Your task to perform on an android device: move a message to another label in the gmail app Image 0: 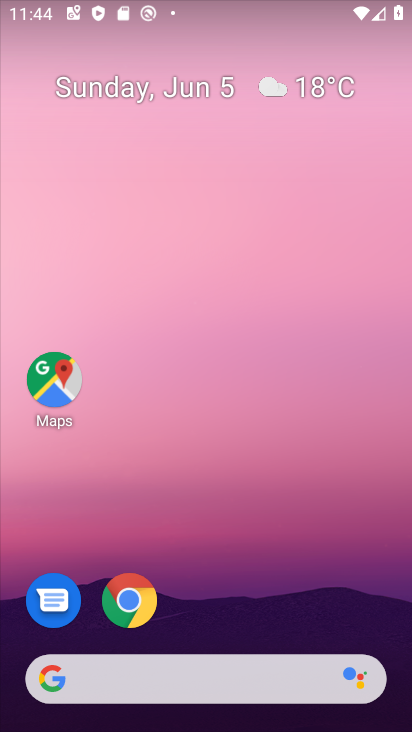
Step 0: drag from (119, 725) to (165, 119)
Your task to perform on an android device: move a message to another label in the gmail app Image 1: 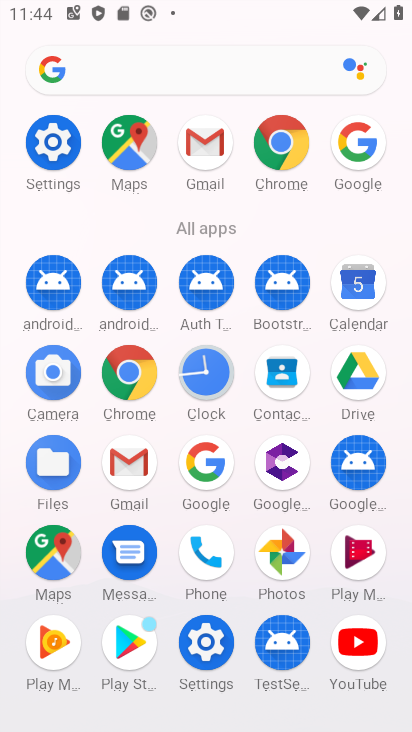
Step 1: click (122, 478)
Your task to perform on an android device: move a message to another label in the gmail app Image 2: 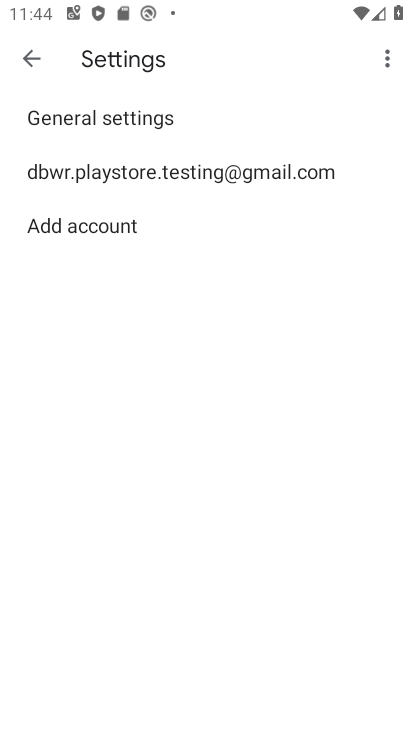
Step 2: click (30, 58)
Your task to perform on an android device: move a message to another label in the gmail app Image 3: 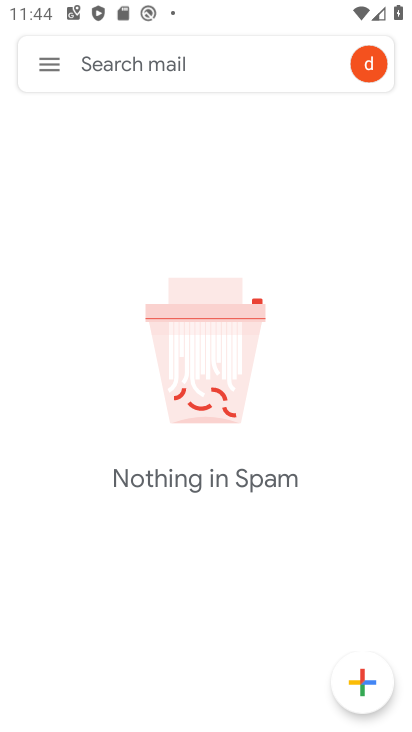
Step 3: click (50, 75)
Your task to perform on an android device: move a message to another label in the gmail app Image 4: 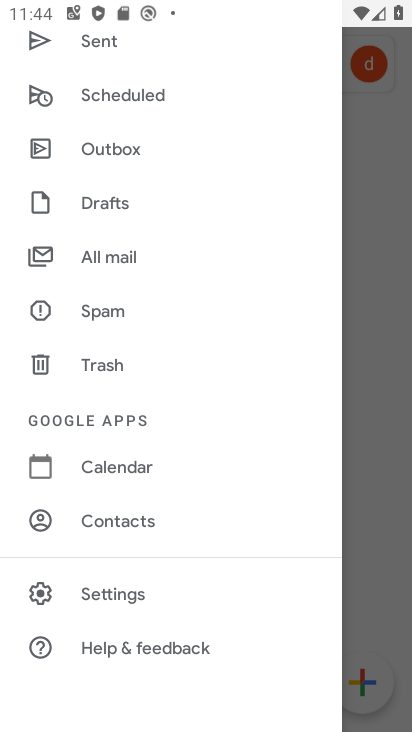
Step 4: click (76, 260)
Your task to perform on an android device: move a message to another label in the gmail app Image 5: 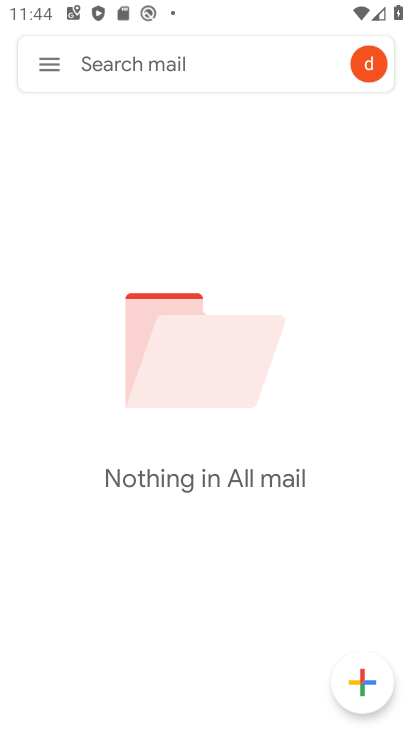
Step 5: click (44, 62)
Your task to perform on an android device: move a message to another label in the gmail app Image 6: 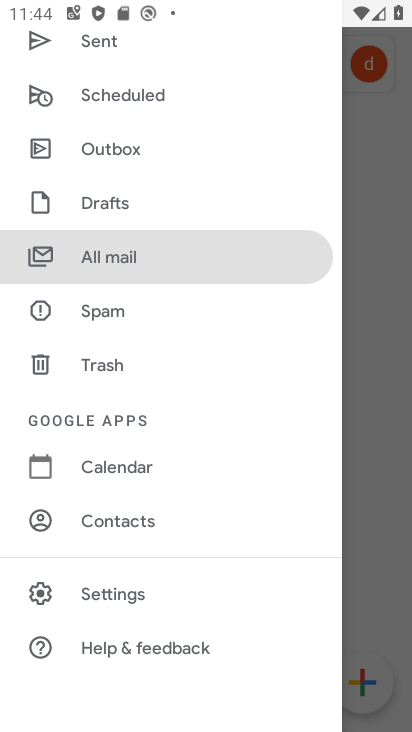
Step 6: drag from (218, 207) to (212, 728)
Your task to perform on an android device: move a message to another label in the gmail app Image 7: 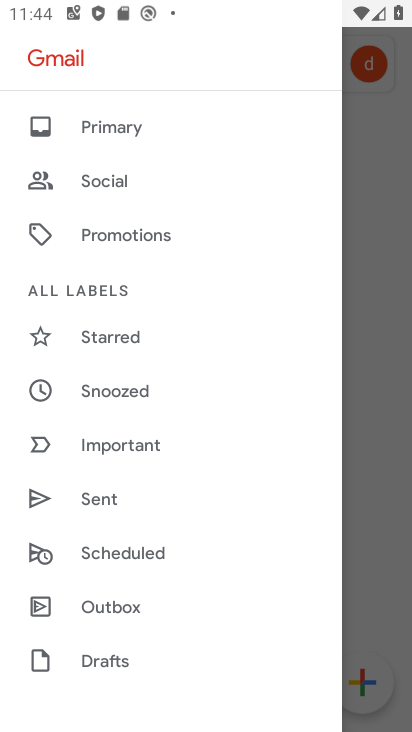
Step 7: click (115, 124)
Your task to perform on an android device: move a message to another label in the gmail app Image 8: 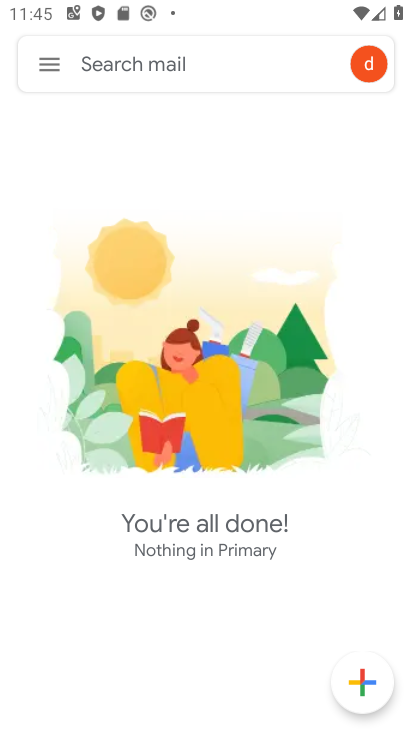
Step 8: task complete